Your task to perform on an android device: turn on location history Image 0: 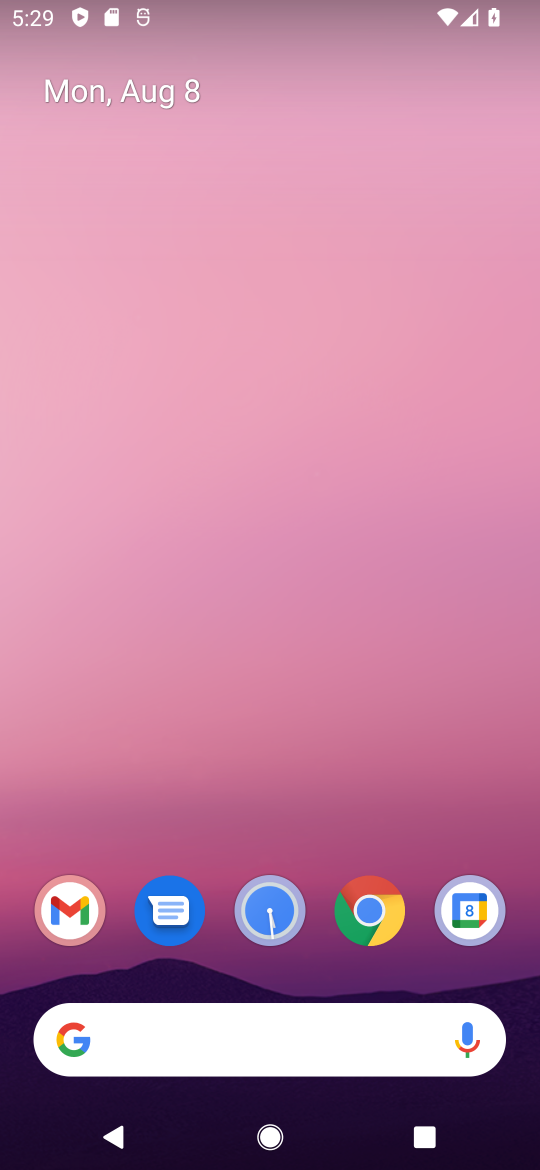
Step 0: drag from (224, 1037) to (260, 364)
Your task to perform on an android device: turn on location history Image 1: 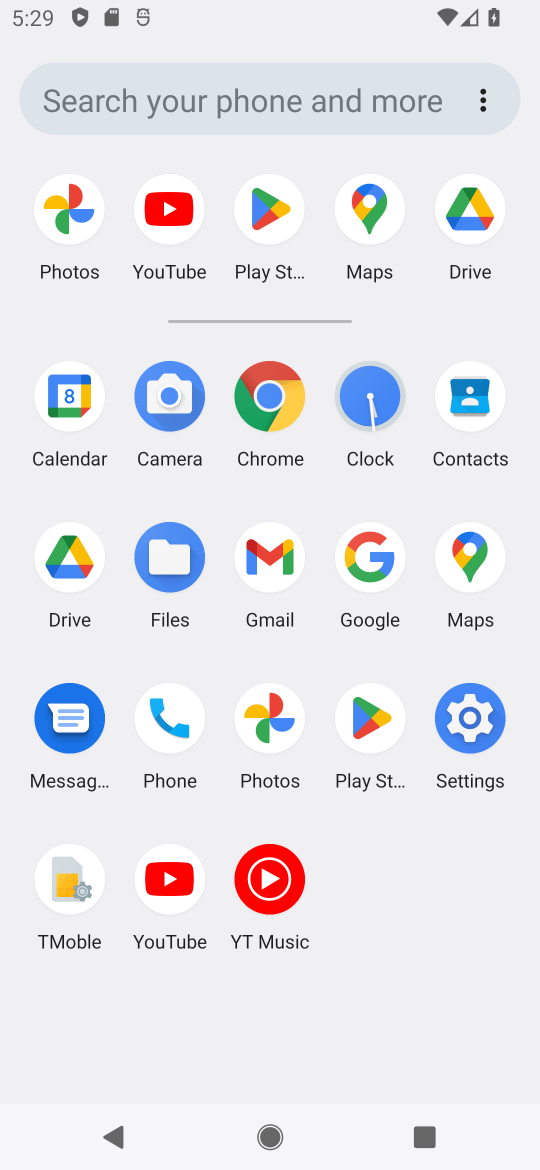
Step 1: click (467, 719)
Your task to perform on an android device: turn on location history Image 2: 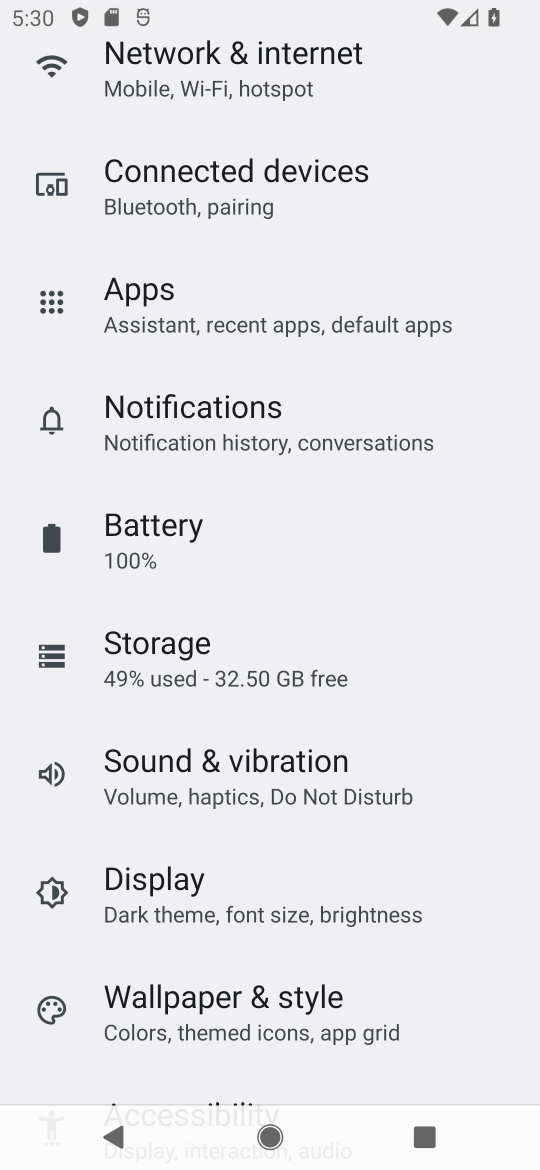
Step 2: drag from (220, 867) to (250, 692)
Your task to perform on an android device: turn on location history Image 3: 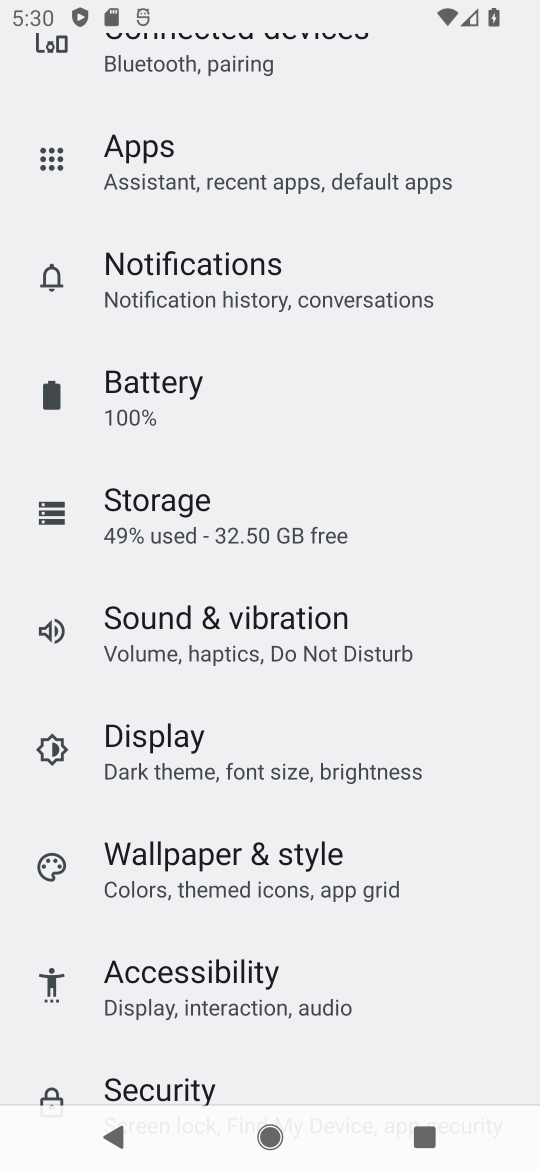
Step 3: drag from (217, 917) to (230, 748)
Your task to perform on an android device: turn on location history Image 4: 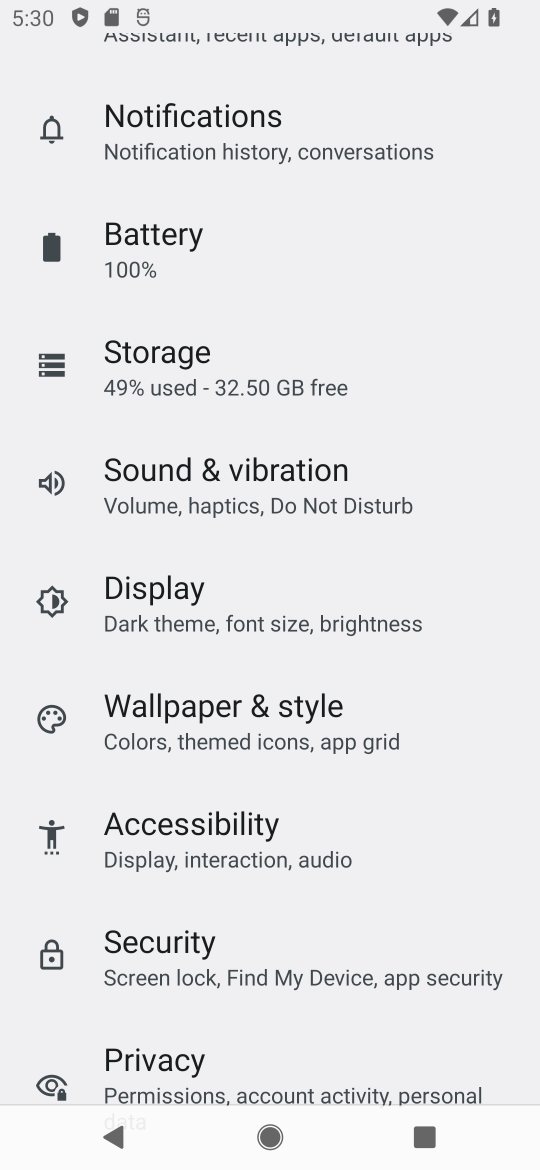
Step 4: drag from (217, 878) to (289, 698)
Your task to perform on an android device: turn on location history Image 5: 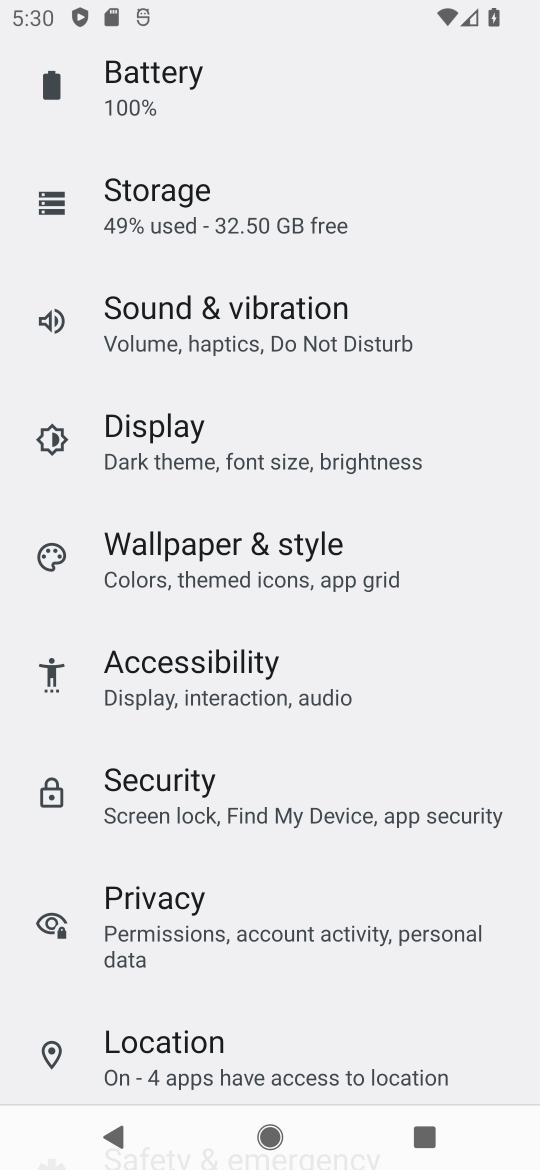
Step 5: click (244, 1072)
Your task to perform on an android device: turn on location history Image 6: 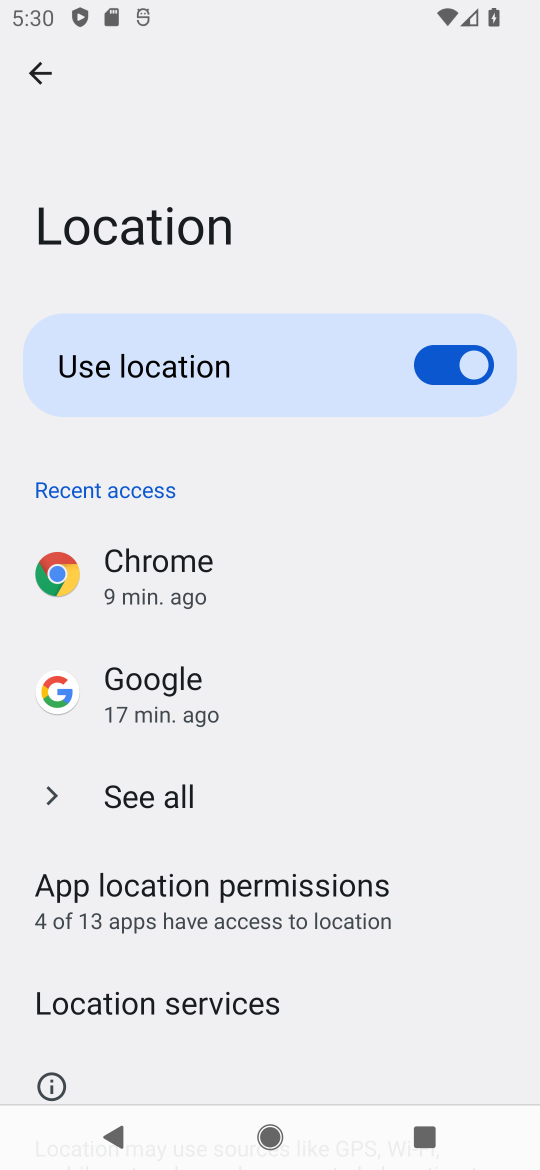
Step 6: click (151, 1007)
Your task to perform on an android device: turn on location history Image 7: 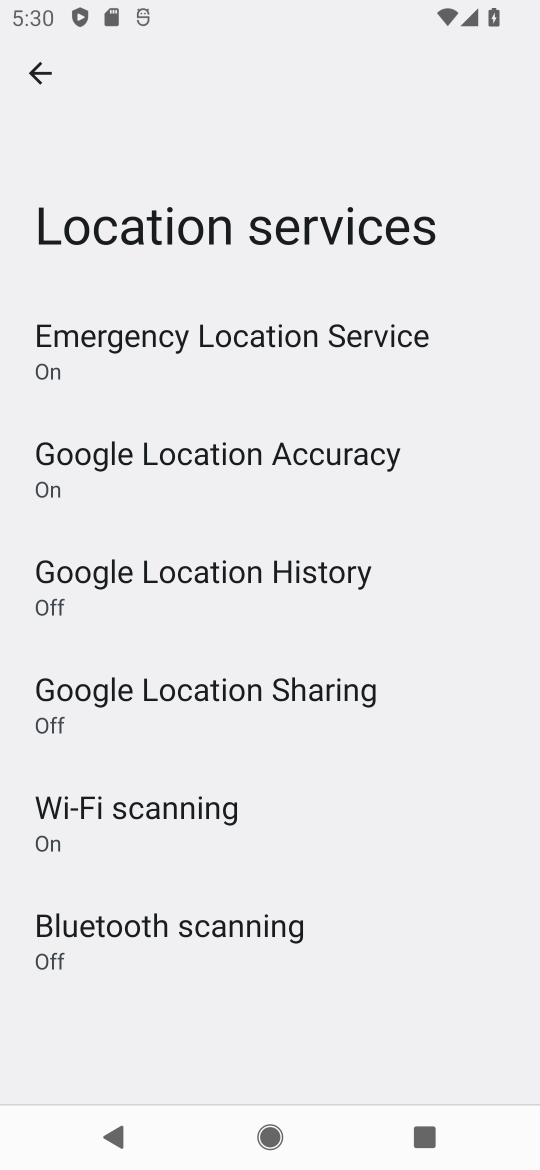
Step 7: click (229, 576)
Your task to perform on an android device: turn on location history Image 8: 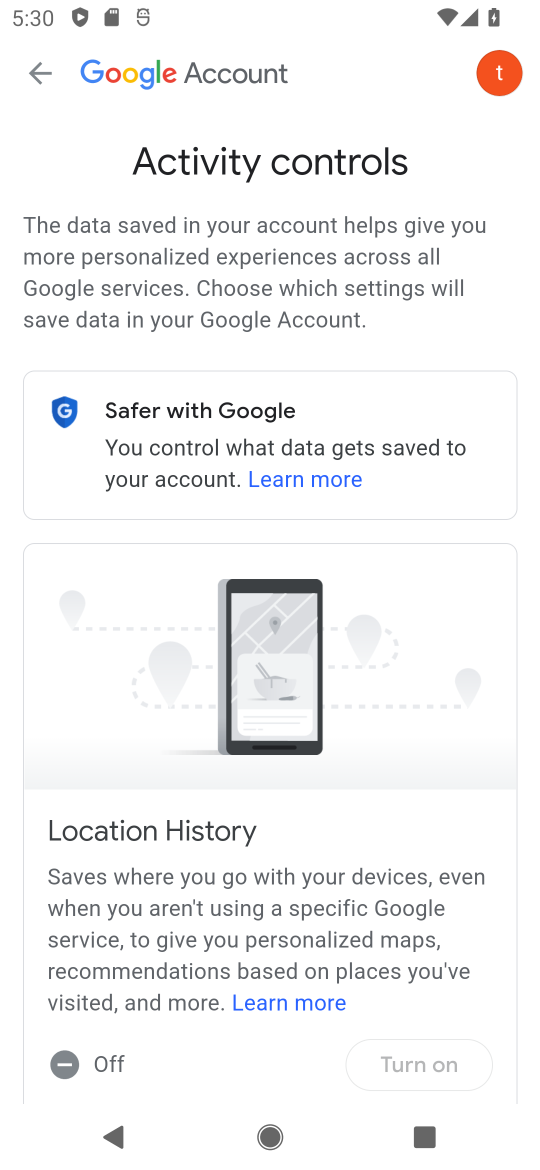
Step 8: drag from (325, 1066) to (441, 664)
Your task to perform on an android device: turn on location history Image 9: 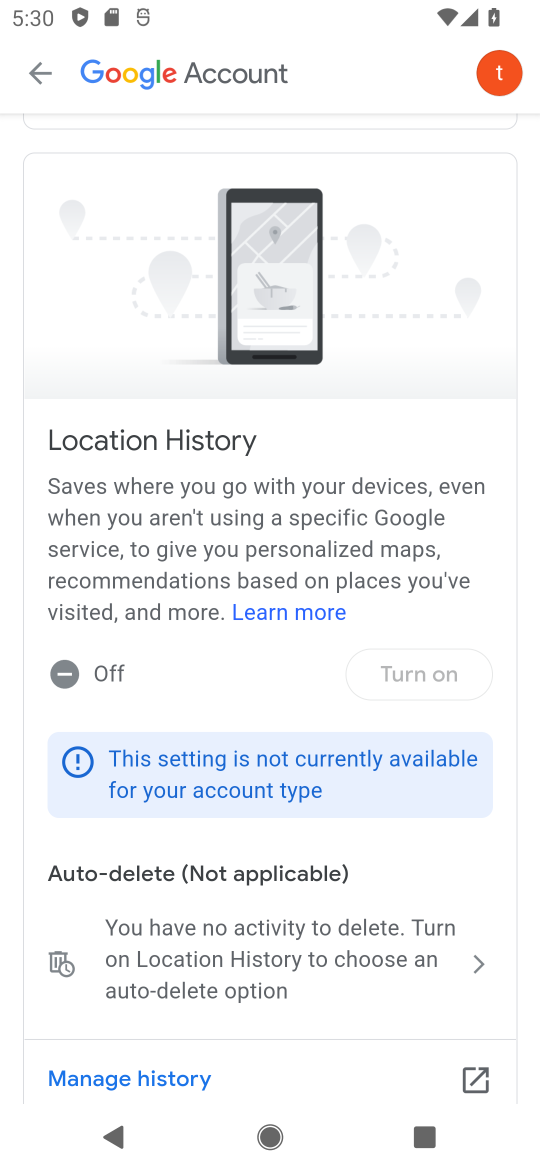
Step 9: drag from (255, 1040) to (443, 729)
Your task to perform on an android device: turn on location history Image 10: 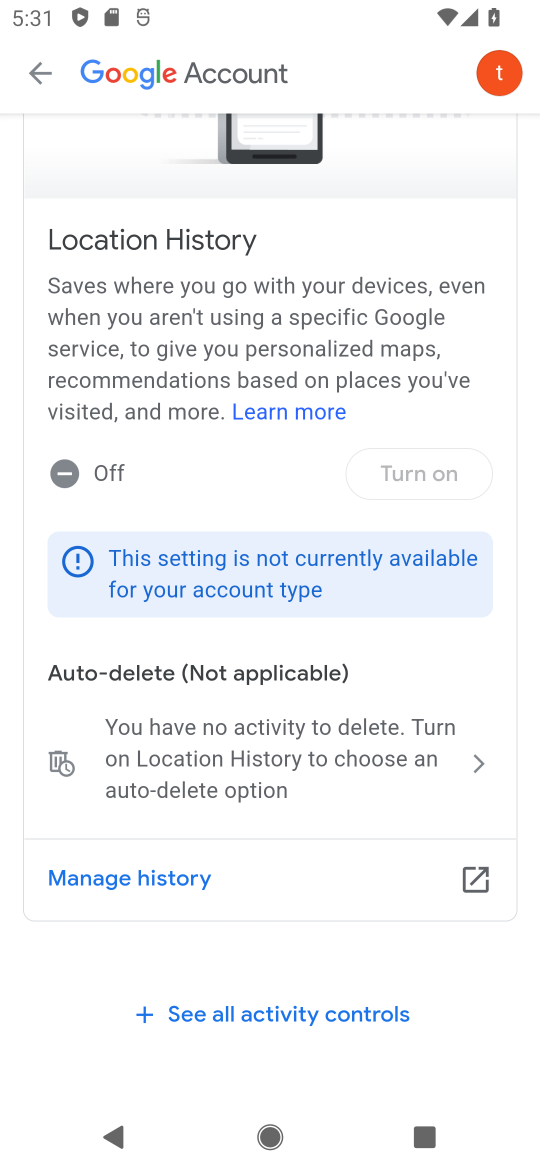
Step 10: click (268, 1020)
Your task to perform on an android device: turn on location history Image 11: 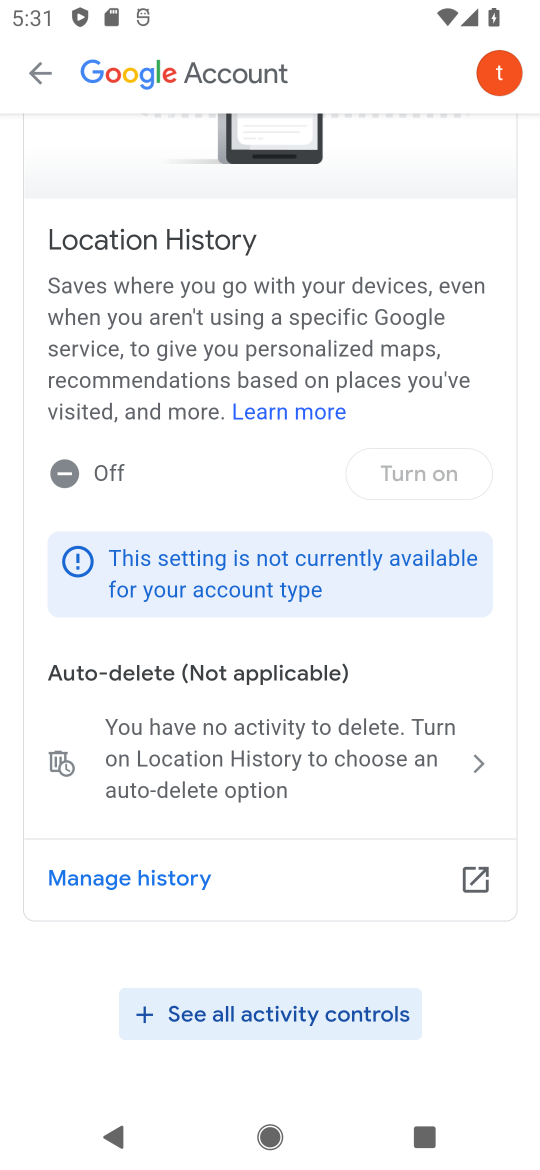
Step 11: click (268, 1020)
Your task to perform on an android device: turn on location history Image 12: 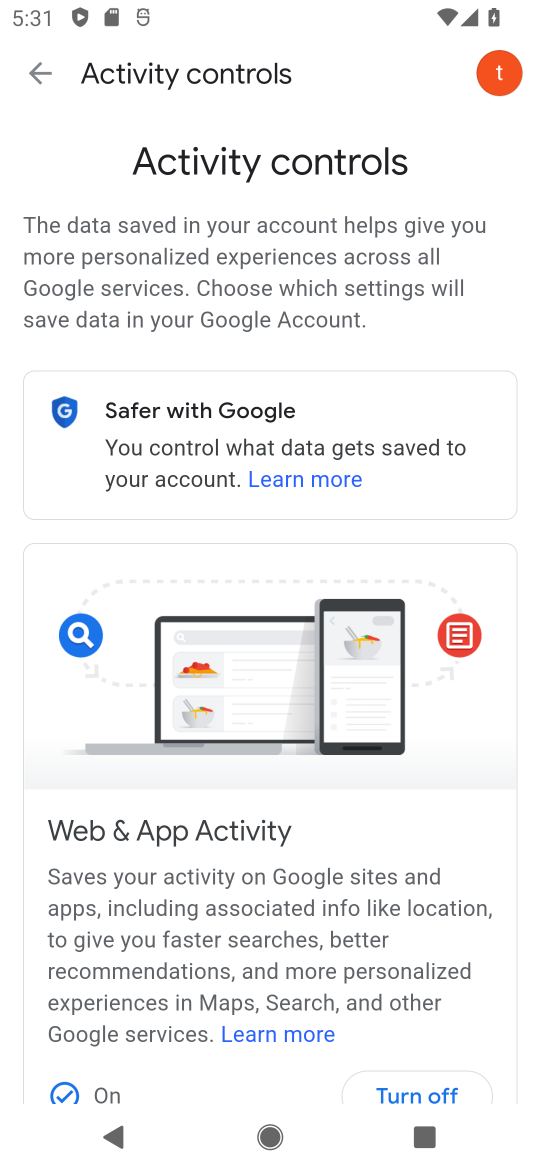
Step 12: task complete